Your task to perform on an android device: Open accessibility settings Image 0: 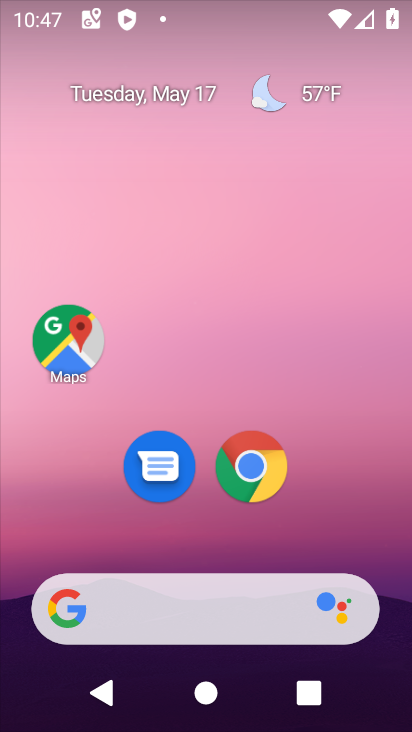
Step 0: drag from (212, 551) to (231, 25)
Your task to perform on an android device: Open accessibility settings Image 1: 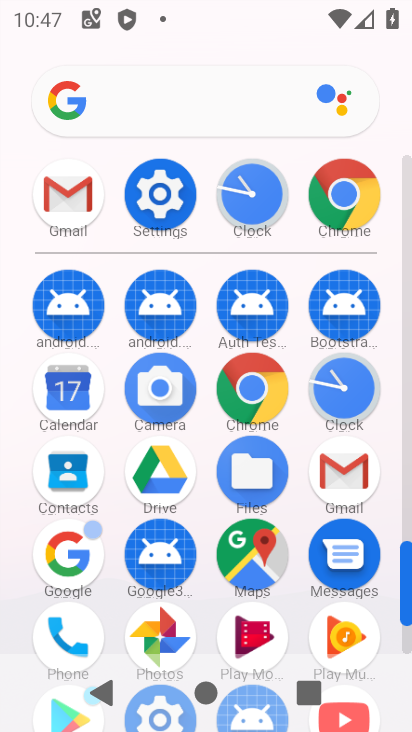
Step 1: click (155, 208)
Your task to perform on an android device: Open accessibility settings Image 2: 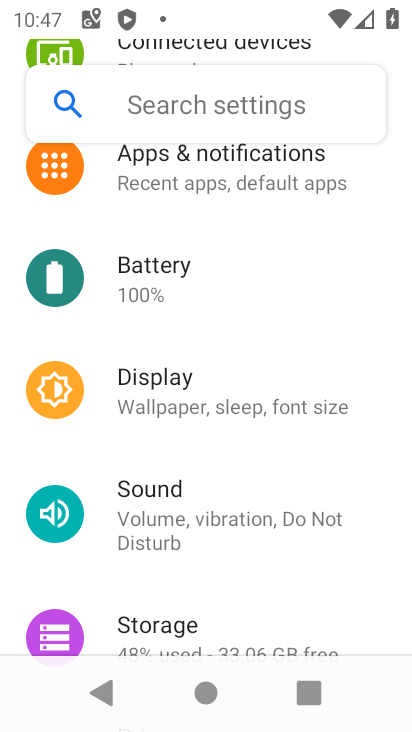
Step 2: drag from (181, 530) to (144, 206)
Your task to perform on an android device: Open accessibility settings Image 3: 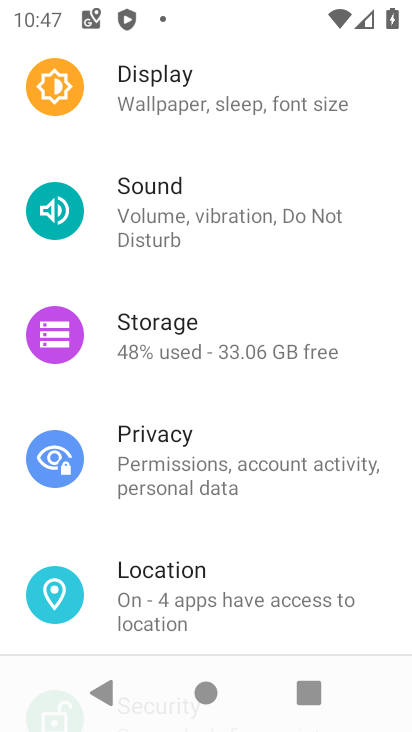
Step 3: drag from (257, 561) to (244, 229)
Your task to perform on an android device: Open accessibility settings Image 4: 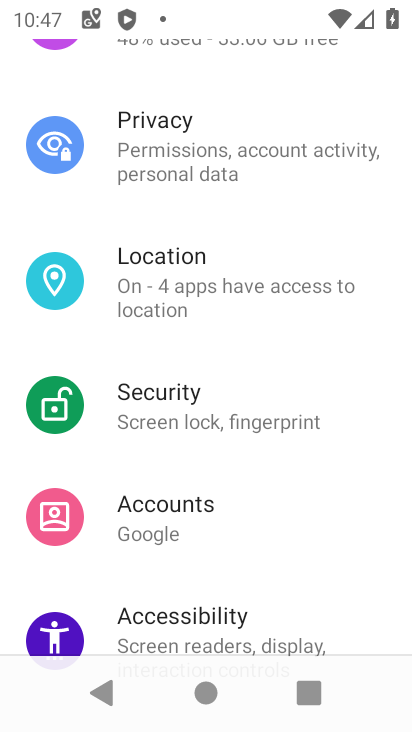
Step 4: click (175, 595)
Your task to perform on an android device: Open accessibility settings Image 5: 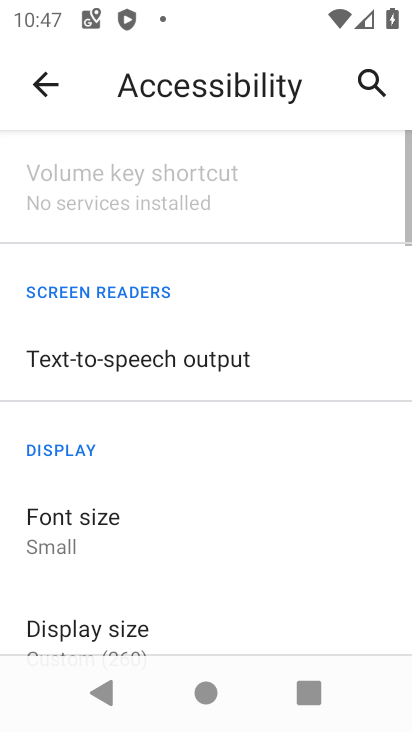
Step 5: task complete